Your task to perform on an android device: Open sound settings Image 0: 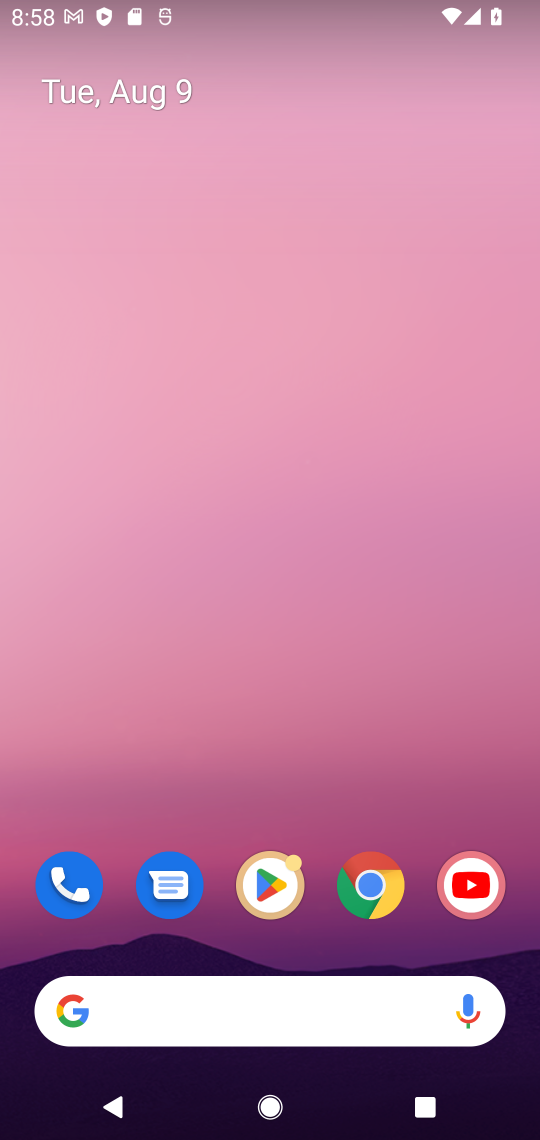
Step 0: drag from (303, 812) to (227, 1)
Your task to perform on an android device: Open sound settings Image 1: 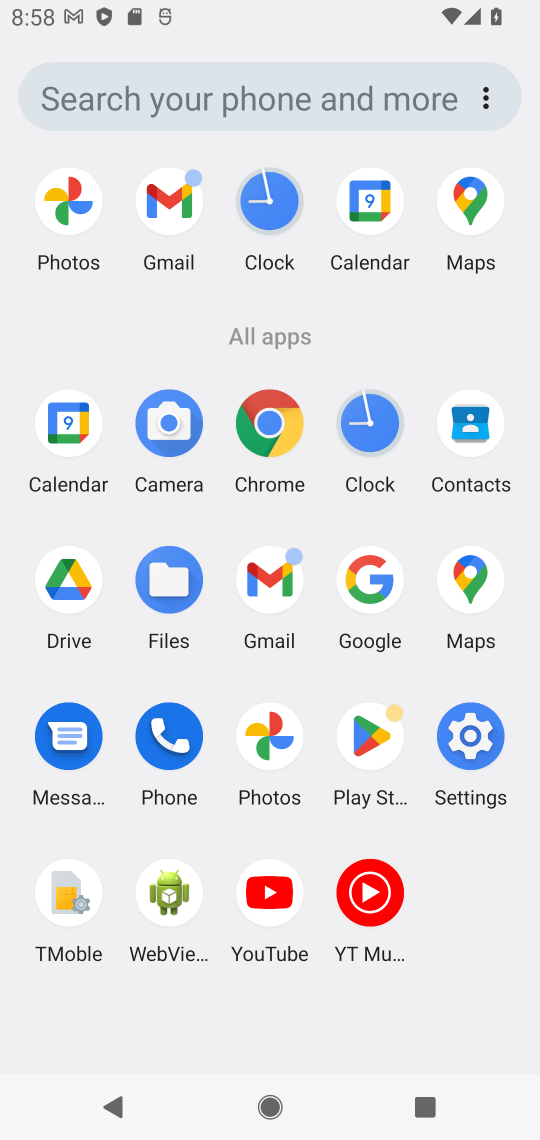
Step 1: click (476, 737)
Your task to perform on an android device: Open sound settings Image 2: 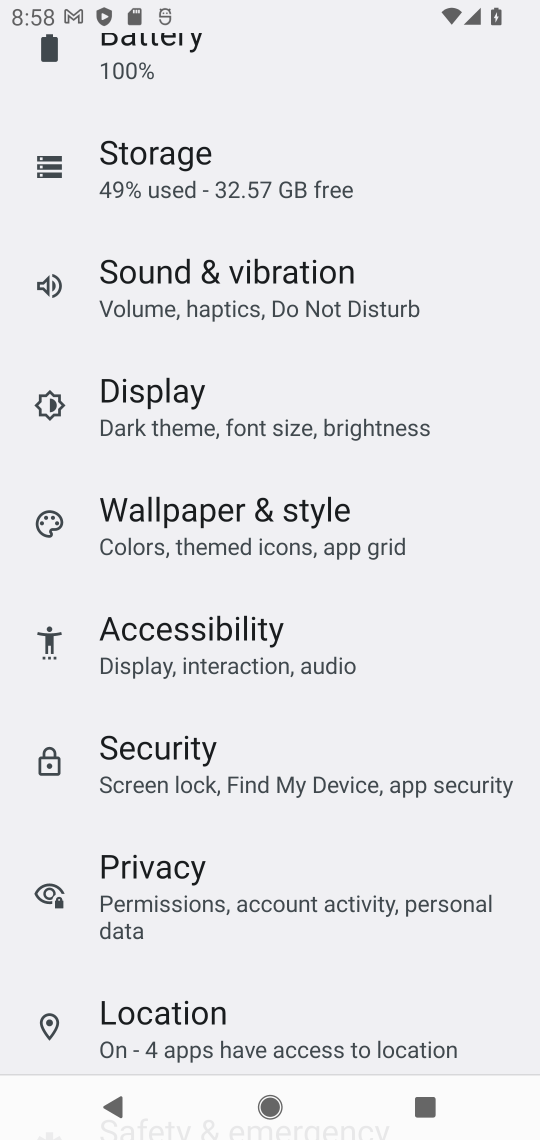
Step 2: click (160, 257)
Your task to perform on an android device: Open sound settings Image 3: 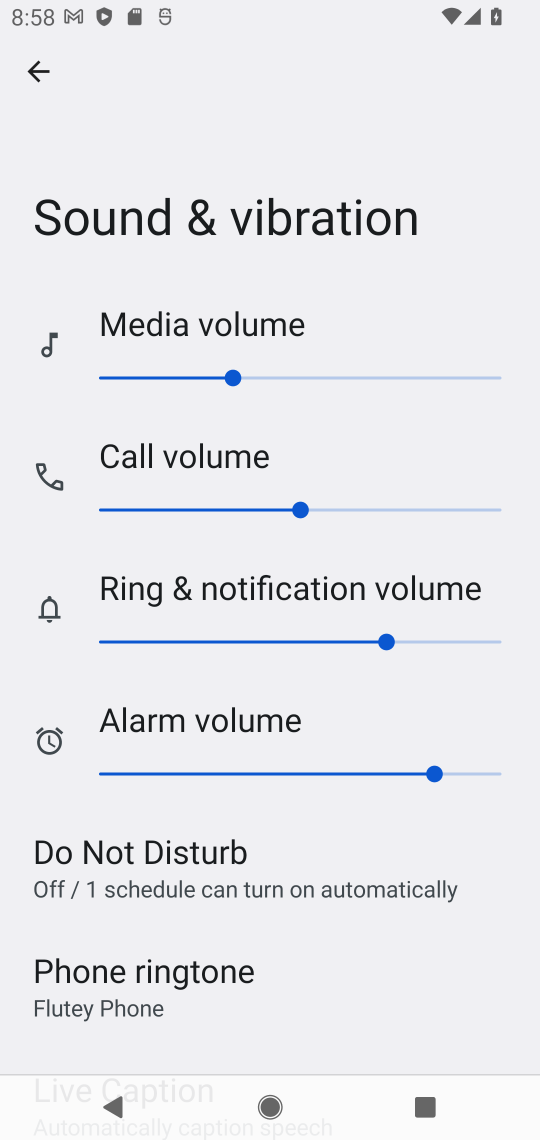
Step 3: task complete